Your task to perform on an android device: Open the calendar and show me this week's events? Image 0: 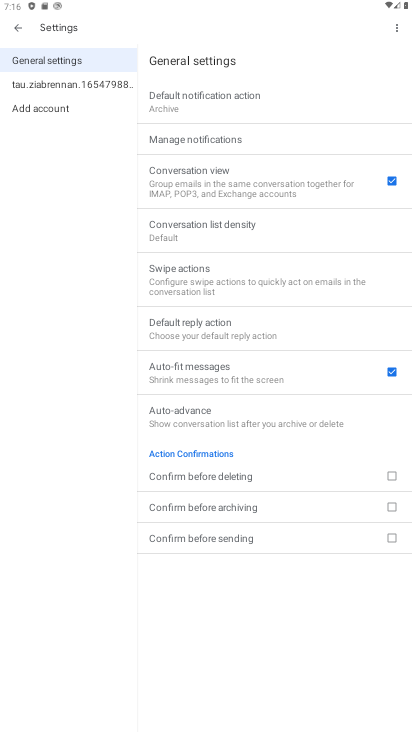
Step 0: press home button
Your task to perform on an android device: Open the calendar and show me this week's events? Image 1: 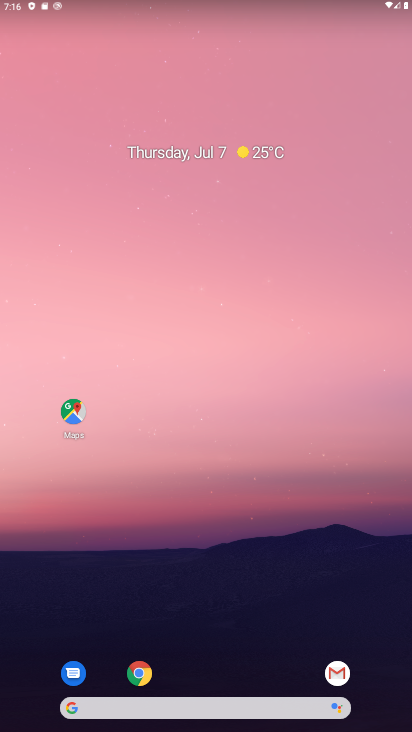
Step 1: drag from (252, 726) to (246, 370)
Your task to perform on an android device: Open the calendar and show me this week's events? Image 2: 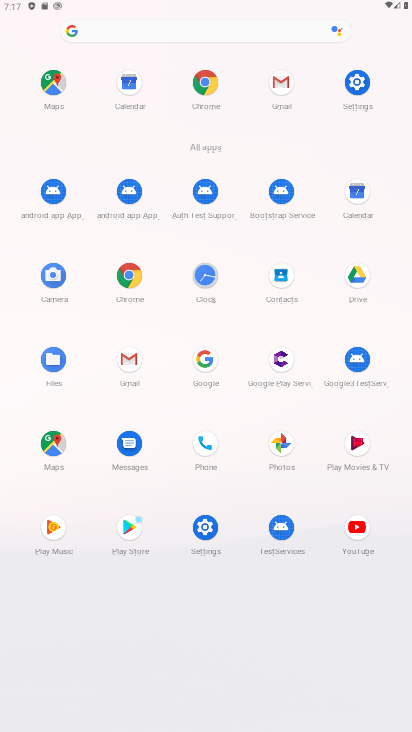
Step 2: click (358, 193)
Your task to perform on an android device: Open the calendar and show me this week's events? Image 3: 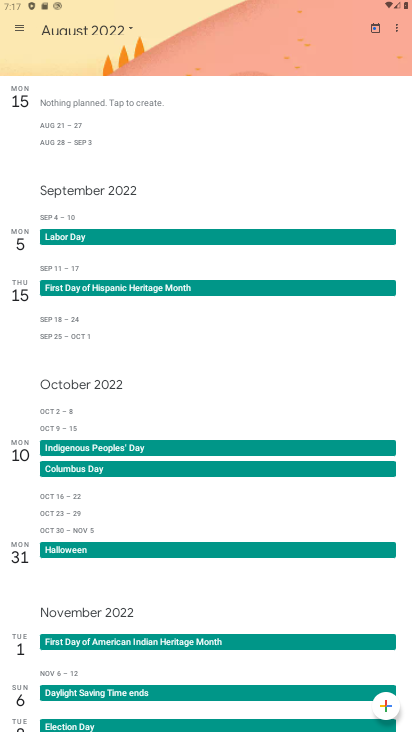
Step 3: click (17, 35)
Your task to perform on an android device: Open the calendar and show me this week's events? Image 4: 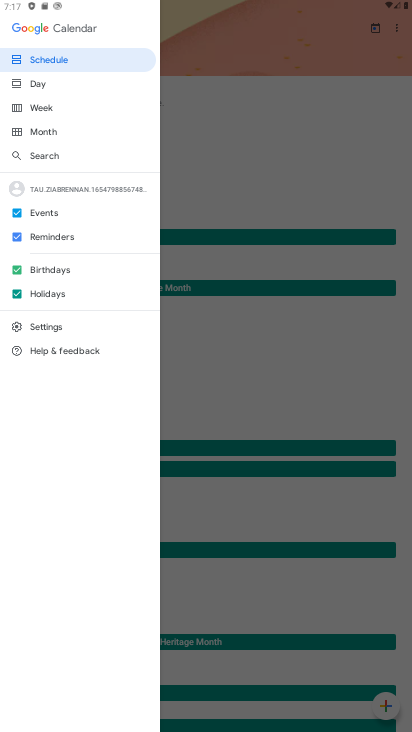
Step 4: click (52, 128)
Your task to perform on an android device: Open the calendar and show me this week's events? Image 5: 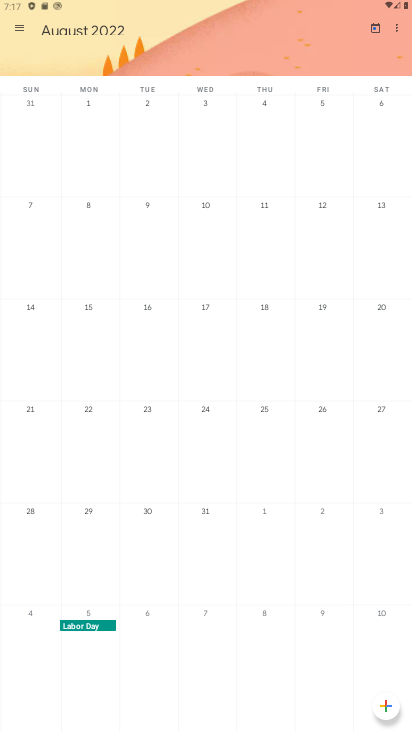
Step 5: drag from (63, 432) to (355, 323)
Your task to perform on an android device: Open the calendar and show me this week's events? Image 6: 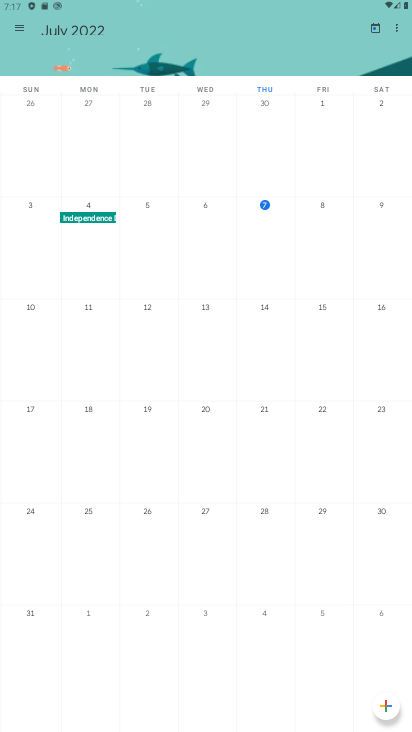
Step 6: click (268, 212)
Your task to perform on an android device: Open the calendar and show me this week's events? Image 7: 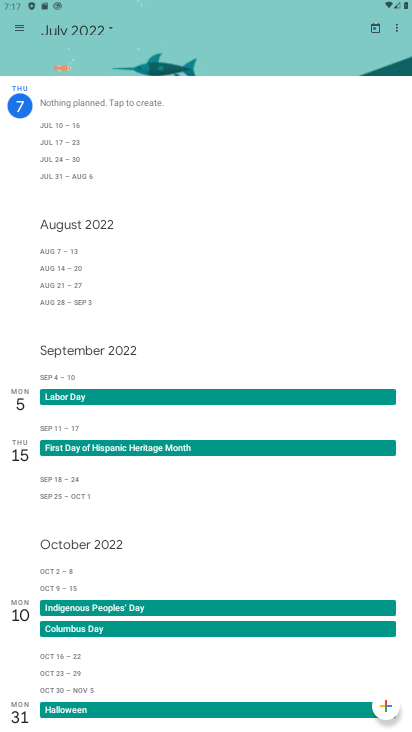
Step 7: task complete